Your task to perform on an android device: Go to Reddit Image 0: 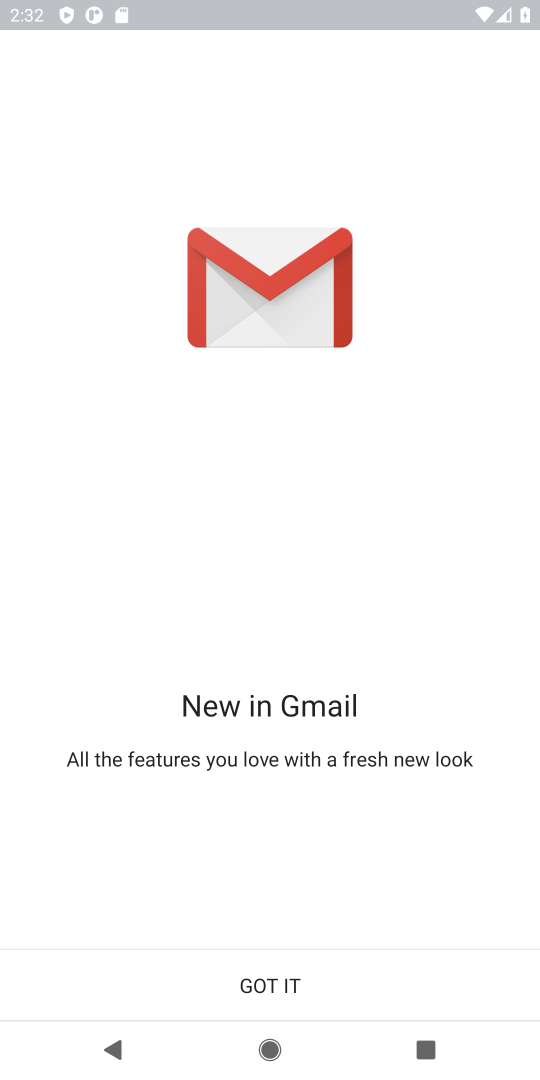
Step 0: press home button
Your task to perform on an android device: Go to Reddit Image 1: 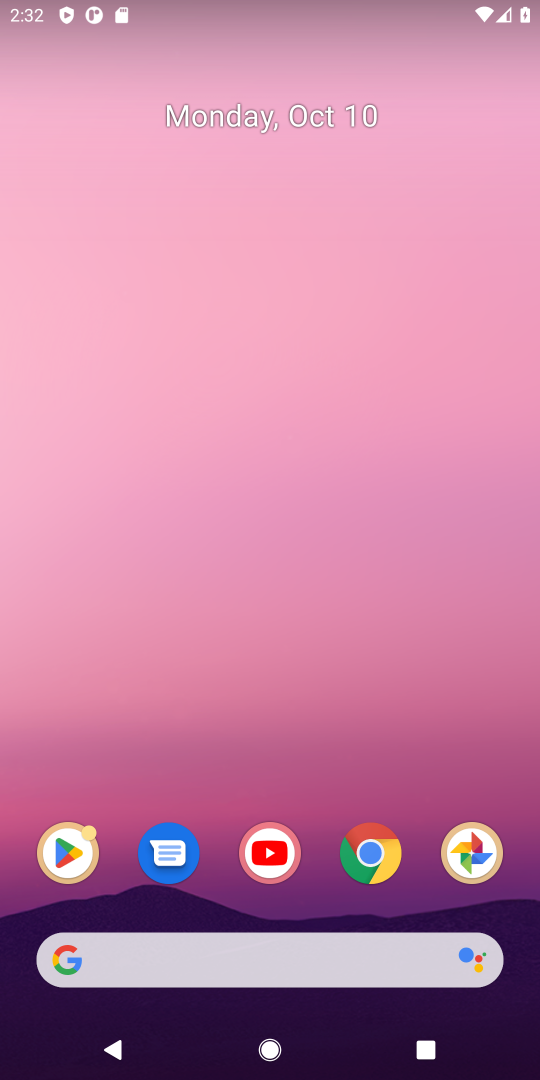
Step 1: click (374, 846)
Your task to perform on an android device: Go to Reddit Image 2: 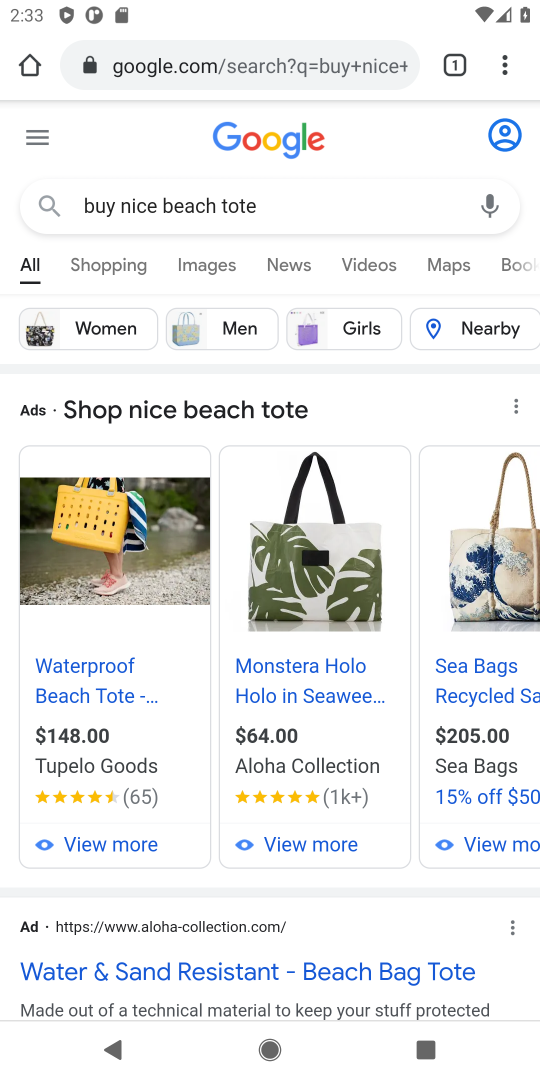
Step 2: click (301, 63)
Your task to perform on an android device: Go to Reddit Image 3: 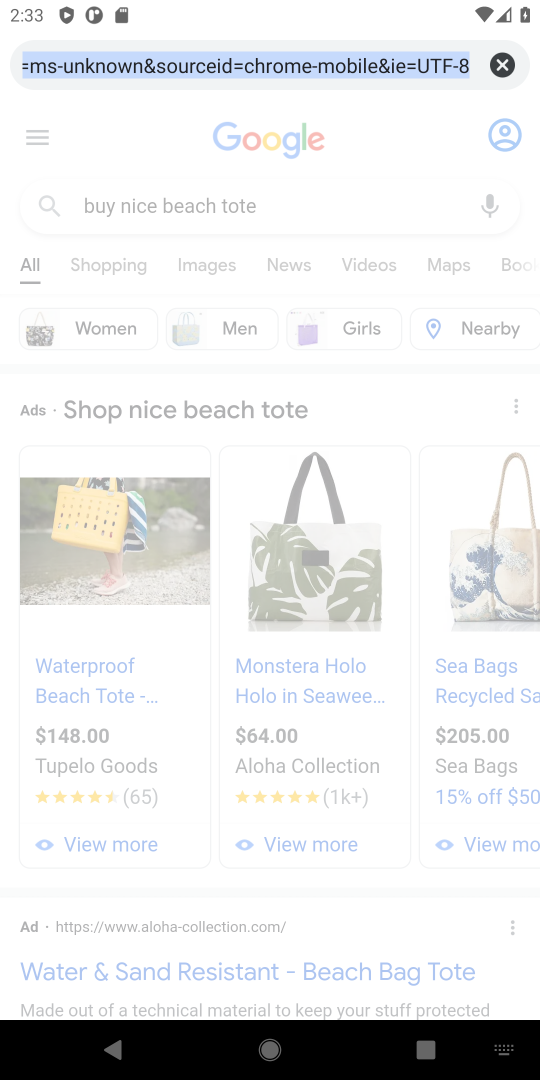
Step 3: type "reddit"
Your task to perform on an android device: Go to Reddit Image 4: 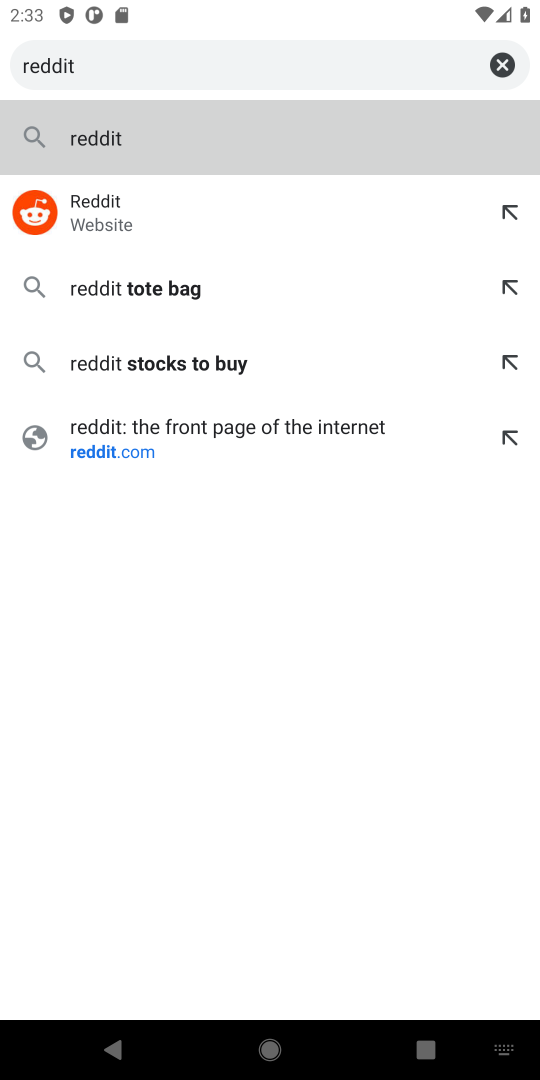
Step 4: click (139, 150)
Your task to perform on an android device: Go to Reddit Image 5: 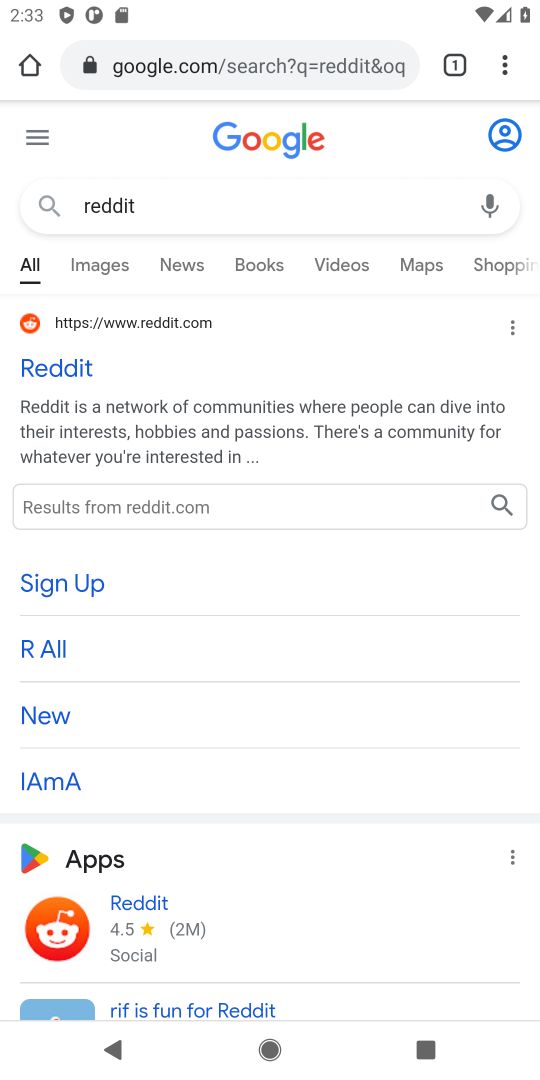
Step 5: click (55, 369)
Your task to perform on an android device: Go to Reddit Image 6: 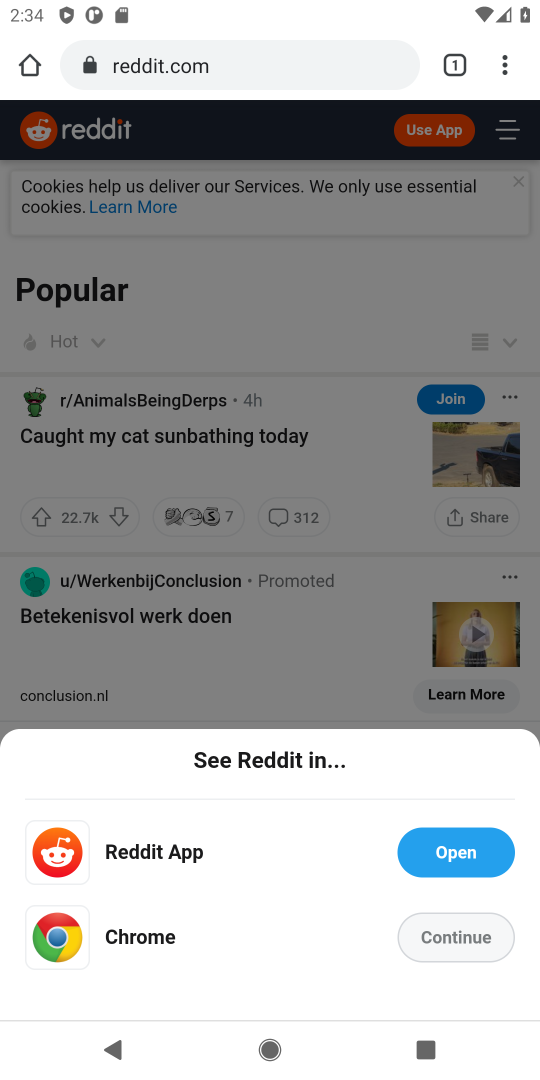
Step 6: click (424, 949)
Your task to perform on an android device: Go to Reddit Image 7: 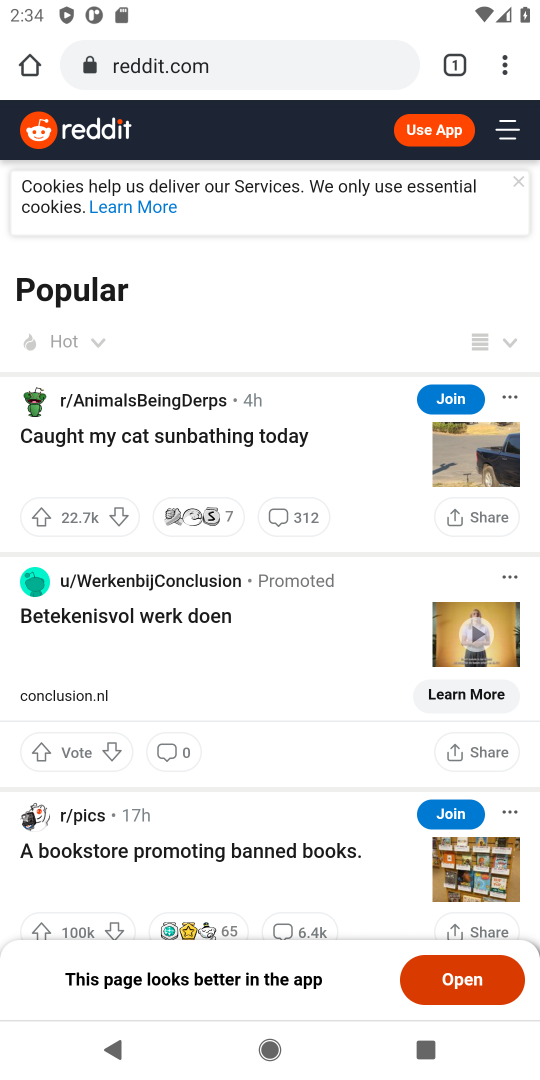
Step 7: task complete